Your task to perform on an android device: check google app version Image 0: 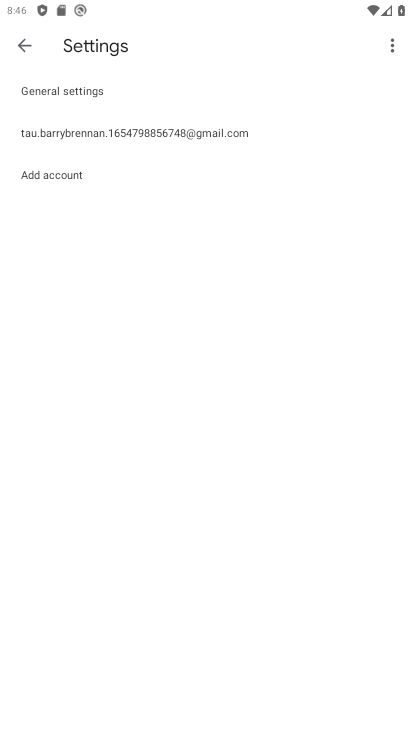
Step 0: press home button
Your task to perform on an android device: check google app version Image 1: 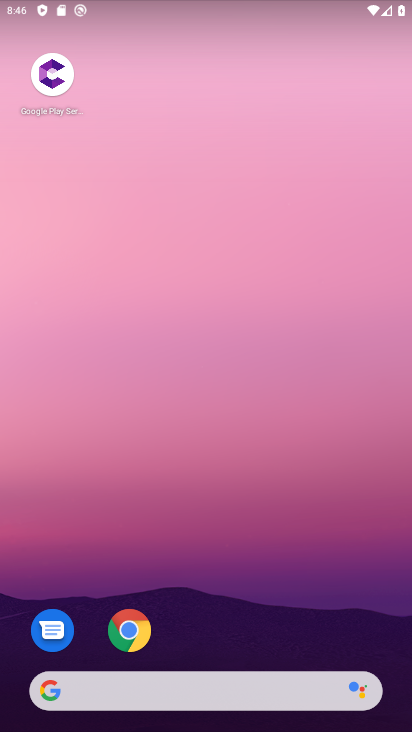
Step 1: drag from (238, 692) to (298, 48)
Your task to perform on an android device: check google app version Image 2: 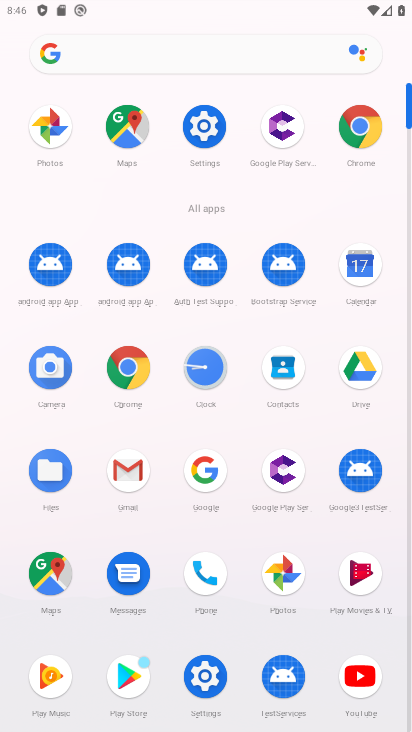
Step 2: click (207, 680)
Your task to perform on an android device: check google app version Image 3: 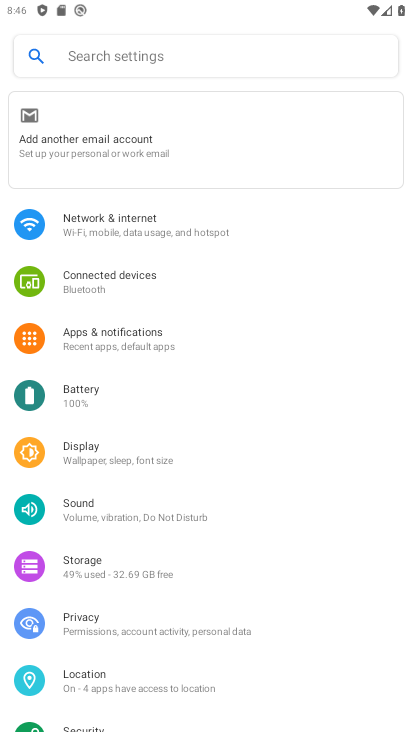
Step 3: click (161, 336)
Your task to perform on an android device: check google app version Image 4: 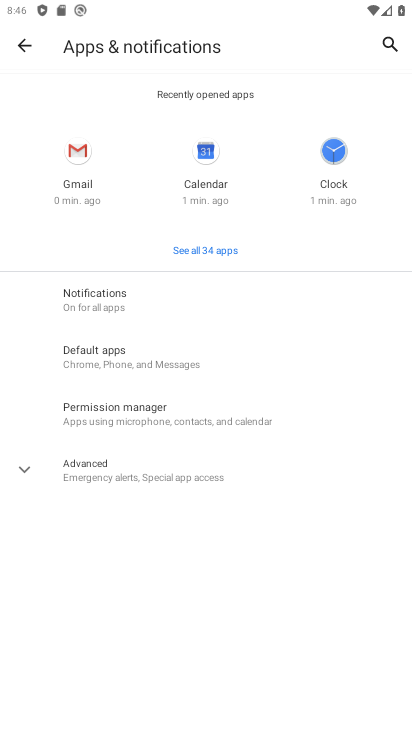
Step 4: click (186, 242)
Your task to perform on an android device: check google app version Image 5: 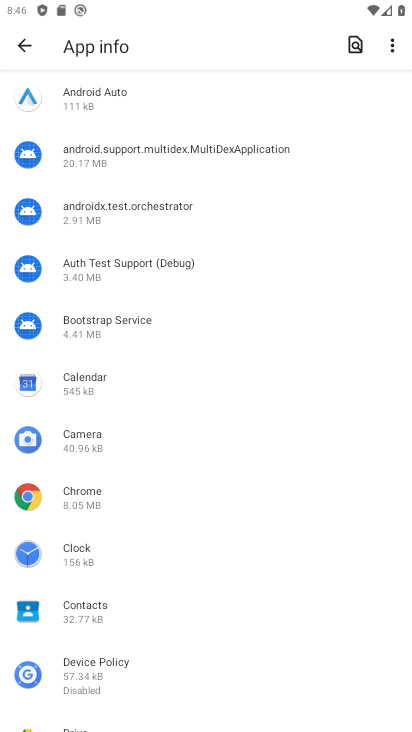
Step 5: drag from (154, 698) to (243, 210)
Your task to perform on an android device: check google app version Image 6: 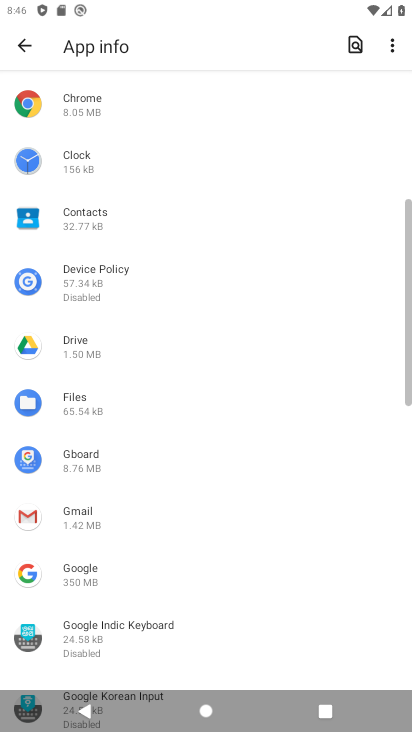
Step 6: click (136, 569)
Your task to perform on an android device: check google app version Image 7: 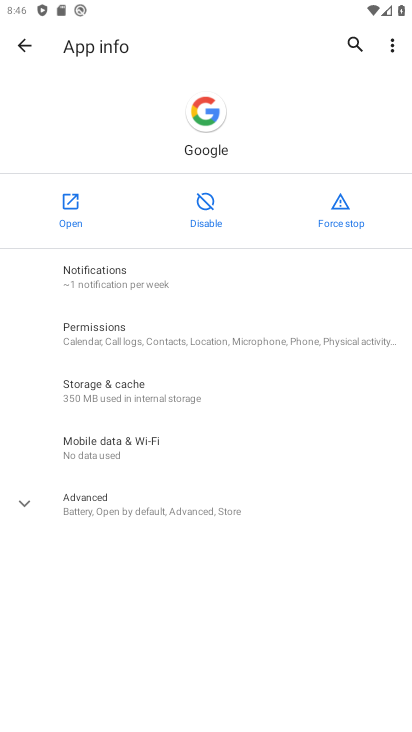
Step 7: click (169, 526)
Your task to perform on an android device: check google app version Image 8: 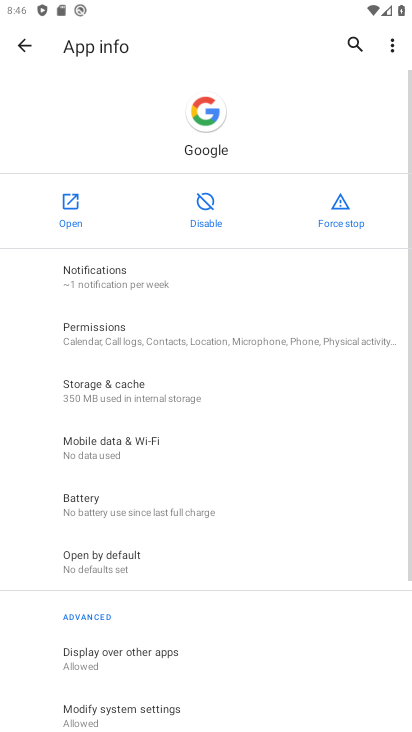
Step 8: task complete